Your task to perform on an android device: Go to settings Image 0: 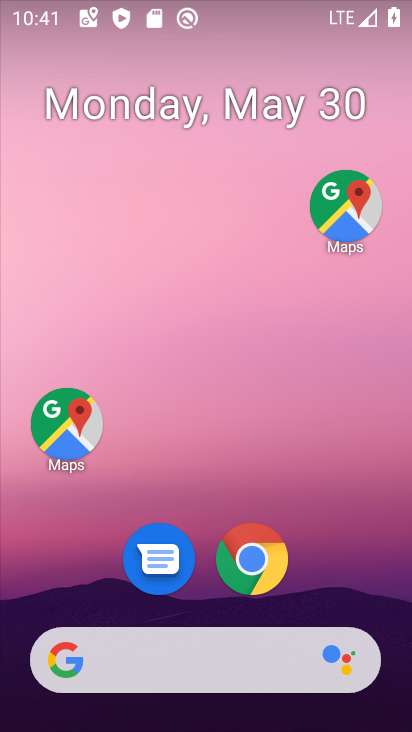
Step 0: drag from (355, 544) to (320, 165)
Your task to perform on an android device: Go to settings Image 1: 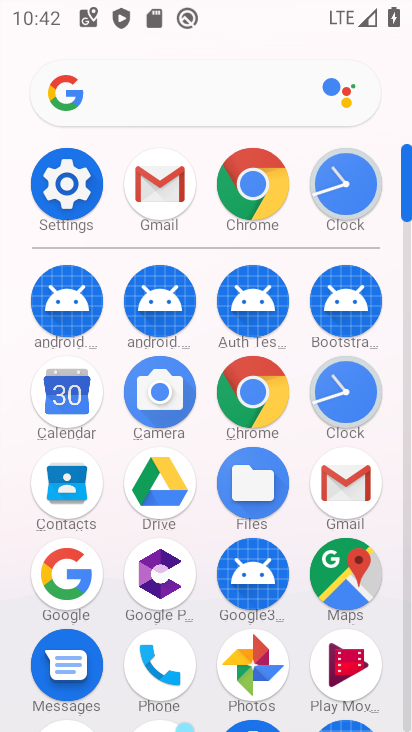
Step 1: click (69, 202)
Your task to perform on an android device: Go to settings Image 2: 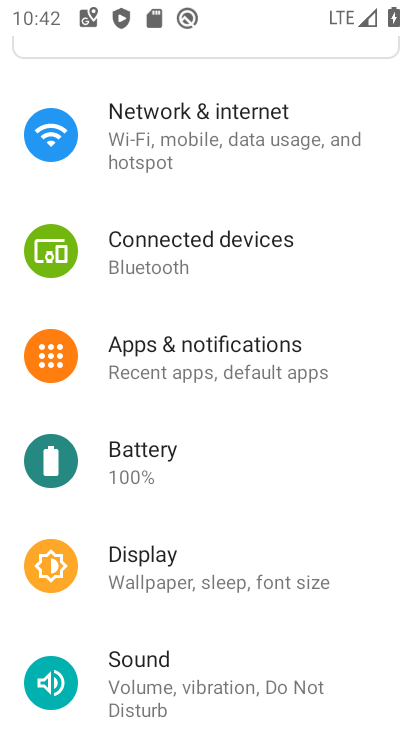
Step 2: task complete